Your task to perform on an android device: allow notifications from all sites in the chrome app Image 0: 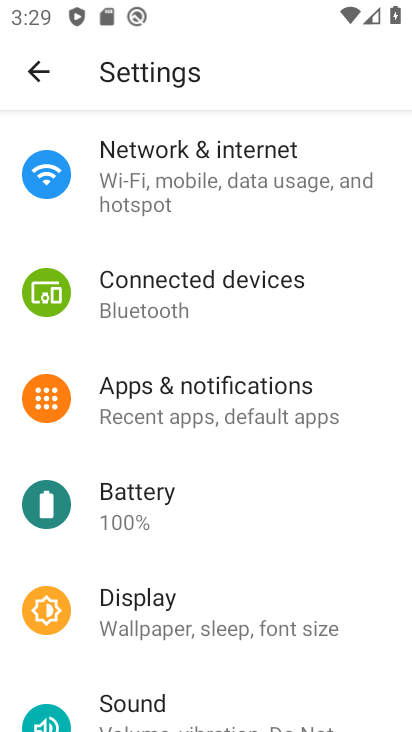
Step 0: press home button
Your task to perform on an android device: allow notifications from all sites in the chrome app Image 1: 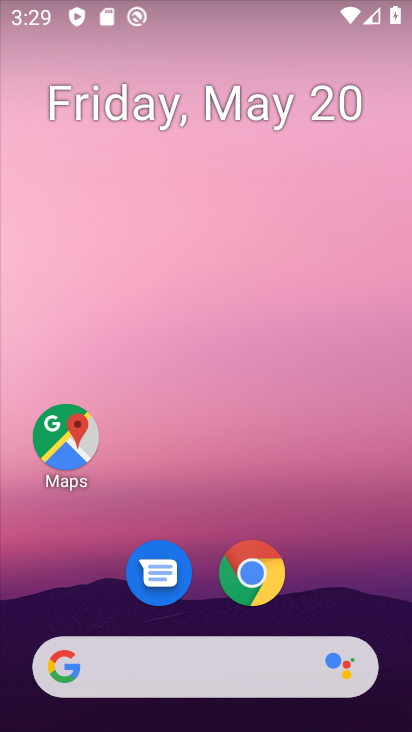
Step 1: drag from (362, 582) to (368, 245)
Your task to perform on an android device: allow notifications from all sites in the chrome app Image 2: 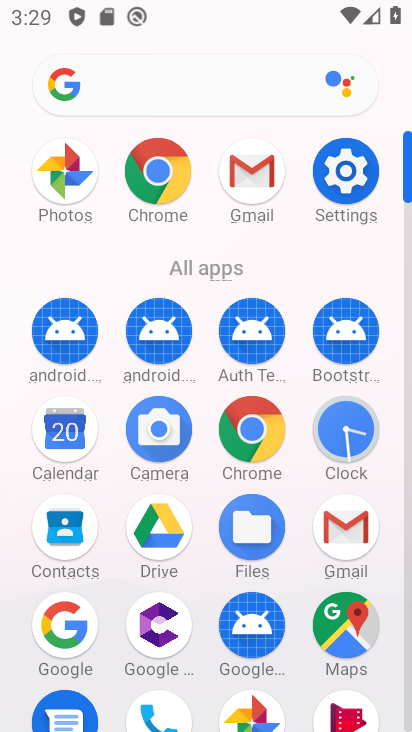
Step 2: click (278, 436)
Your task to perform on an android device: allow notifications from all sites in the chrome app Image 3: 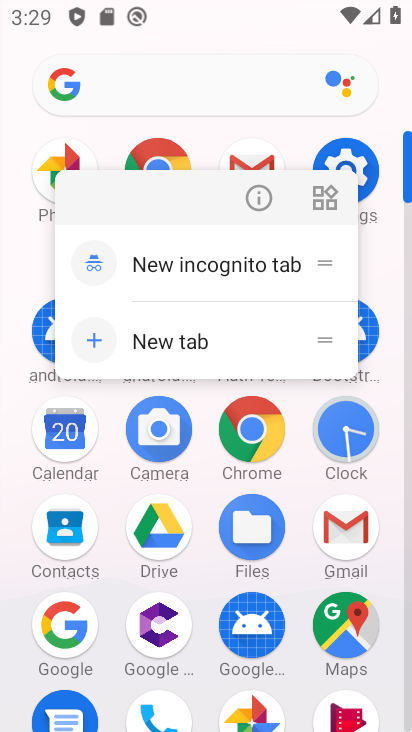
Step 3: click (276, 434)
Your task to perform on an android device: allow notifications from all sites in the chrome app Image 4: 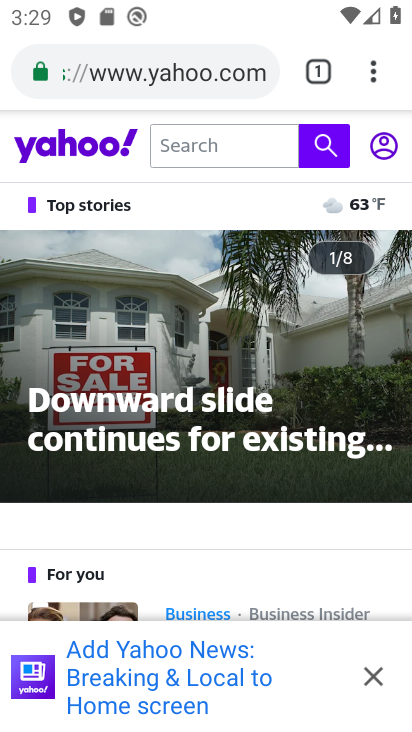
Step 4: drag from (373, 88) to (223, 576)
Your task to perform on an android device: allow notifications from all sites in the chrome app Image 5: 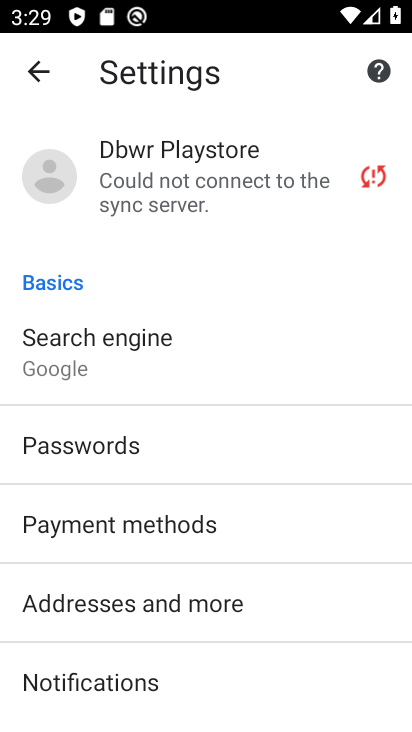
Step 5: drag from (235, 654) to (249, 437)
Your task to perform on an android device: allow notifications from all sites in the chrome app Image 6: 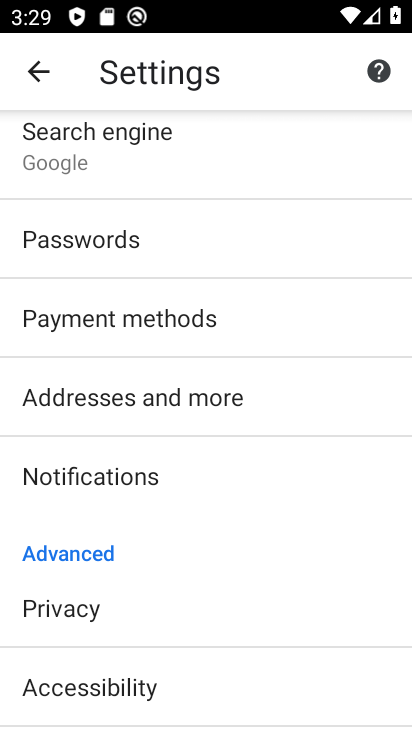
Step 6: drag from (217, 631) to (276, 322)
Your task to perform on an android device: allow notifications from all sites in the chrome app Image 7: 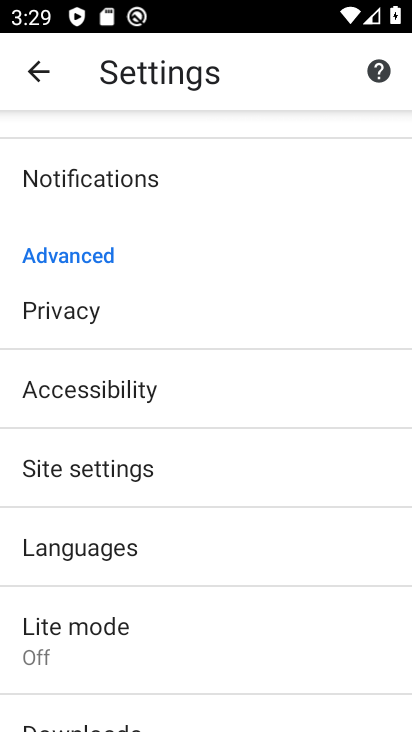
Step 7: click (154, 451)
Your task to perform on an android device: allow notifications from all sites in the chrome app Image 8: 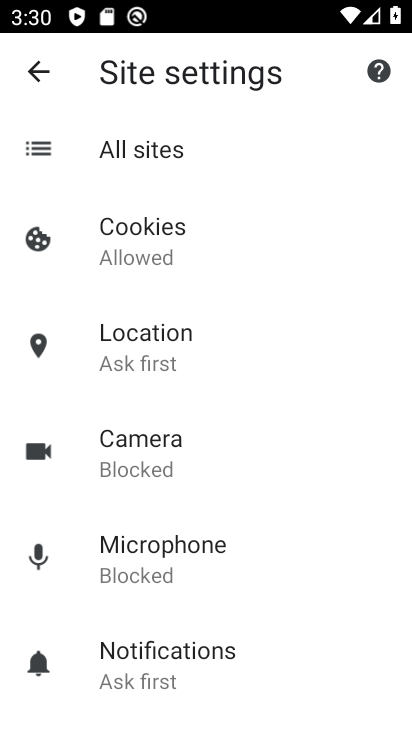
Step 8: click (149, 150)
Your task to perform on an android device: allow notifications from all sites in the chrome app Image 9: 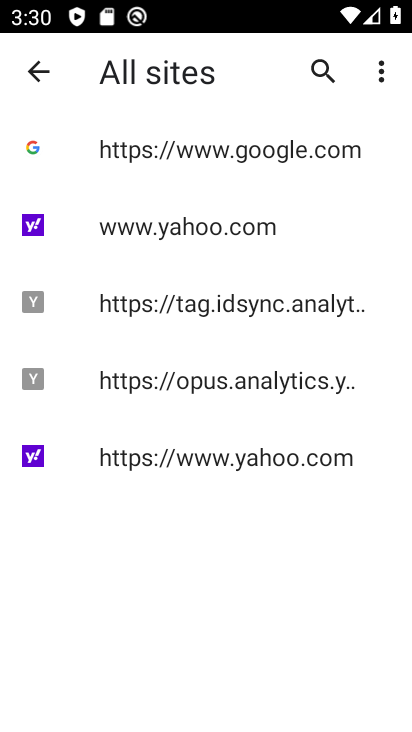
Step 9: task complete